Your task to perform on an android device: Open battery settings Image 0: 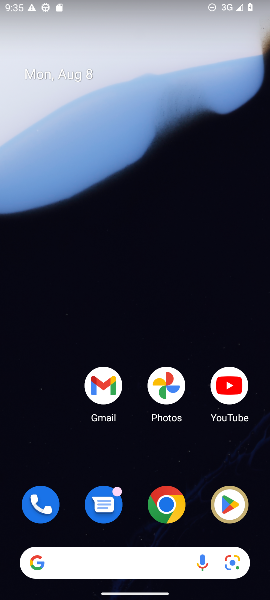
Step 0: drag from (143, 464) to (177, 108)
Your task to perform on an android device: Open battery settings Image 1: 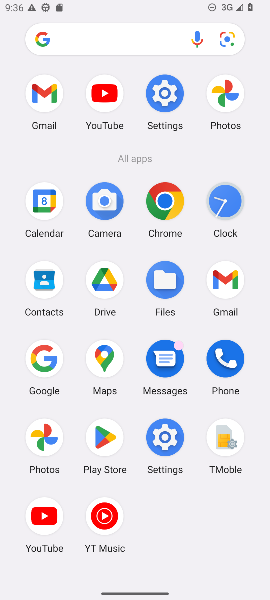
Step 1: click (162, 441)
Your task to perform on an android device: Open battery settings Image 2: 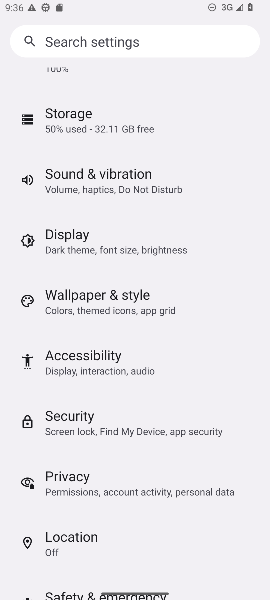
Step 2: drag from (116, 222) to (115, 398)
Your task to perform on an android device: Open battery settings Image 3: 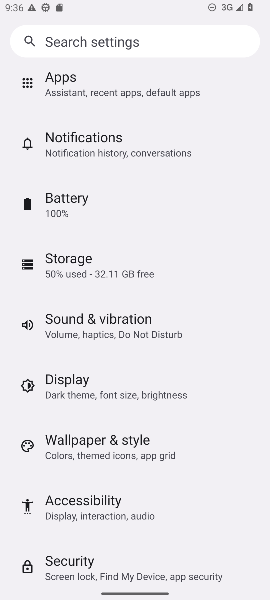
Step 3: click (102, 209)
Your task to perform on an android device: Open battery settings Image 4: 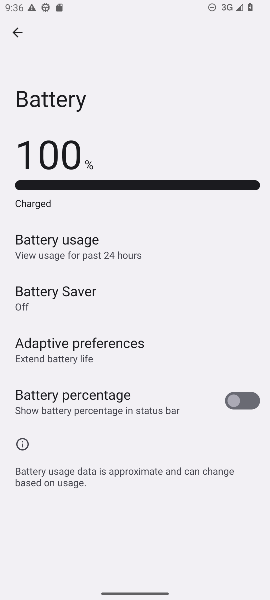
Step 4: task complete